Your task to perform on an android device: choose inbox layout in the gmail app Image 0: 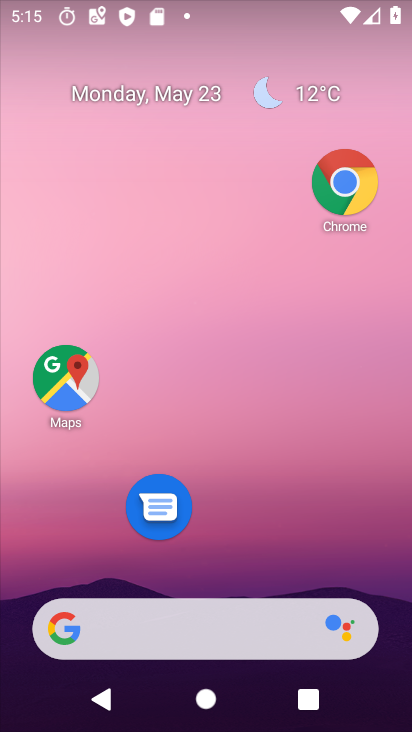
Step 0: drag from (196, 562) to (168, 295)
Your task to perform on an android device: choose inbox layout in the gmail app Image 1: 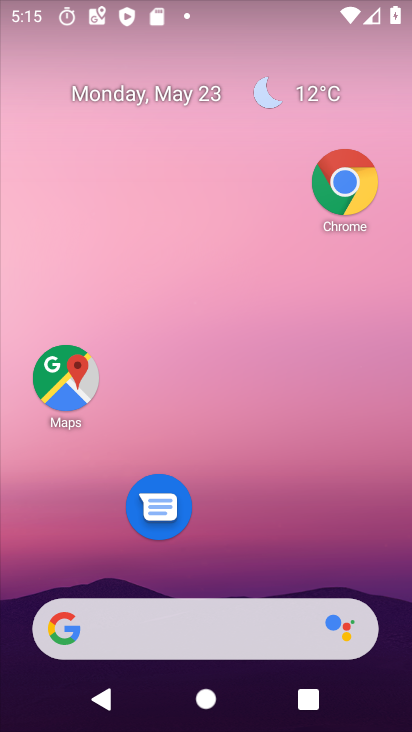
Step 1: drag from (232, 278) to (202, 168)
Your task to perform on an android device: choose inbox layout in the gmail app Image 2: 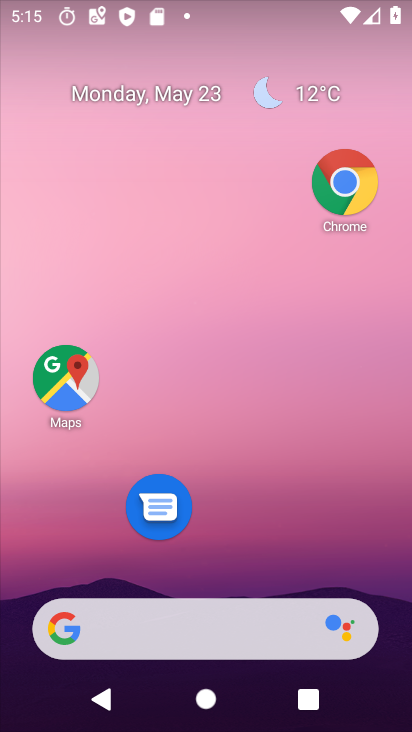
Step 2: drag from (176, 570) to (247, 152)
Your task to perform on an android device: choose inbox layout in the gmail app Image 3: 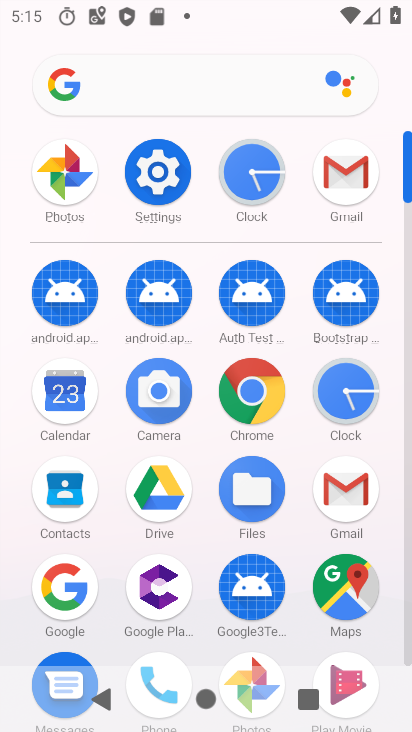
Step 3: click (352, 172)
Your task to perform on an android device: choose inbox layout in the gmail app Image 4: 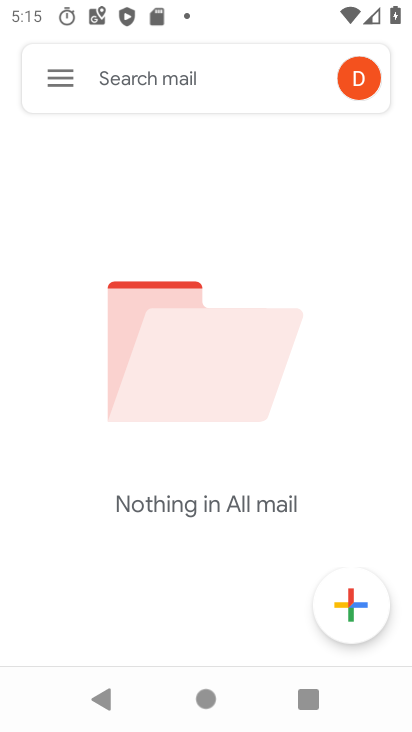
Step 4: click (54, 71)
Your task to perform on an android device: choose inbox layout in the gmail app Image 5: 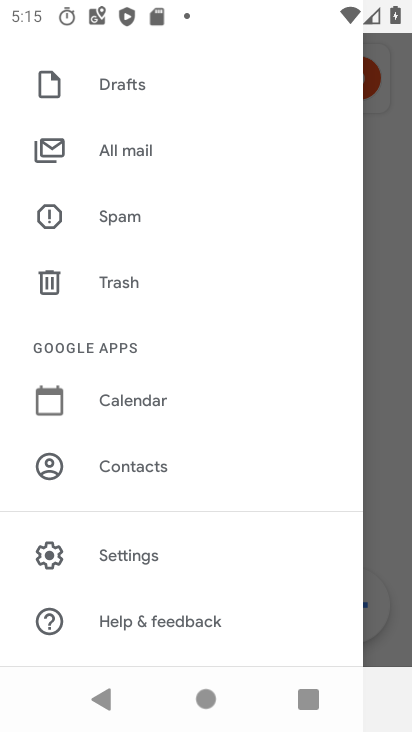
Step 5: click (95, 564)
Your task to perform on an android device: choose inbox layout in the gmail app Image 6: 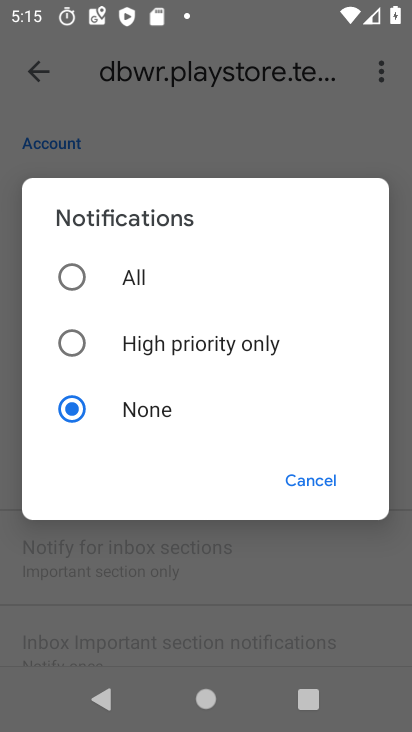
Step 6: click (322, 474)
Your task to perform on an android device: choose inbox layout in the gmail app Image 7: 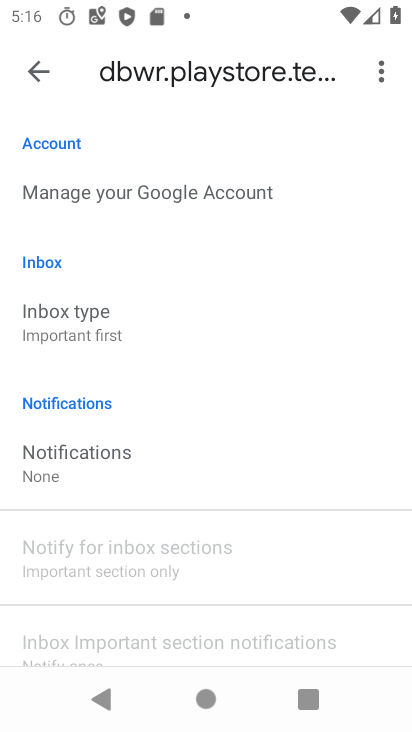
Step 7: click (92, 329)
Your task to perform on an android device: choose inbox layout in the gmail app Image 8: 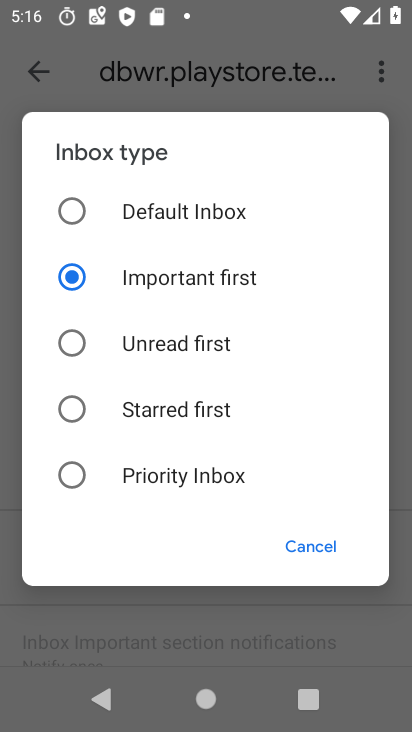
Step 8: click (192, 419)
Your task to perform on an android device: choose inbox layout in the gmail app Image 9: 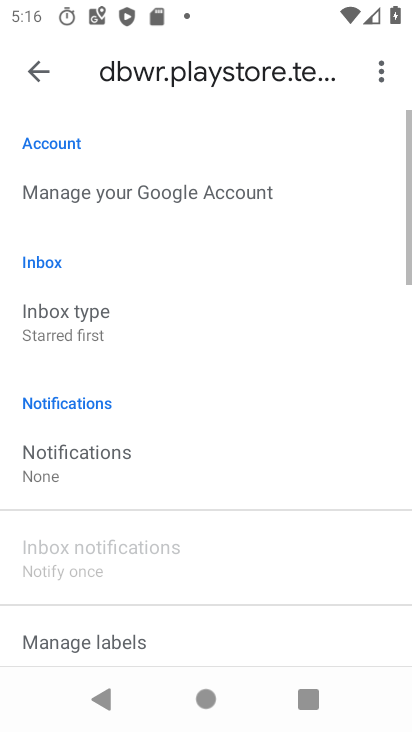
Step 9: task complete